Your task to perform on an android device: refresh tabs in the chrome app Image 0: 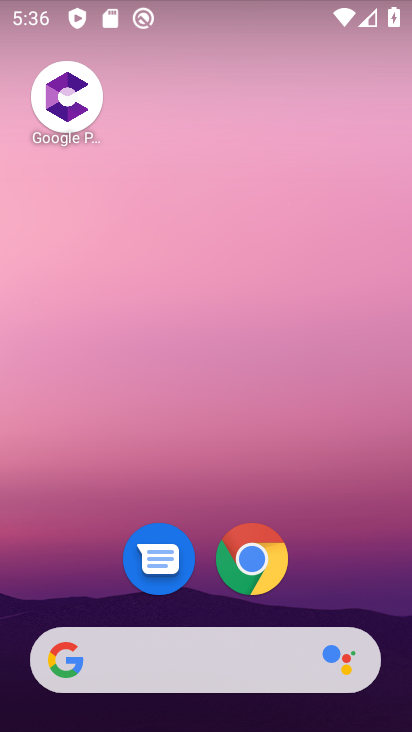
Step 0: press home button
Your task to perform on an android device: refresh tabs in the chrome app Image 1: 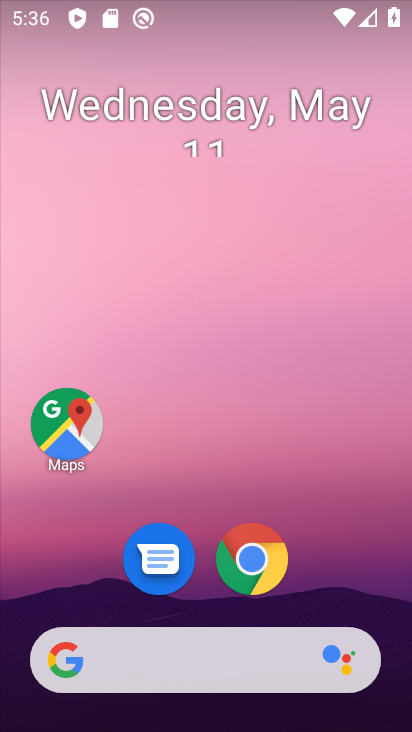
Step 1: click (233, 567)
Your task to perform on an android device: refresh tabs in the chrome app Image 2: 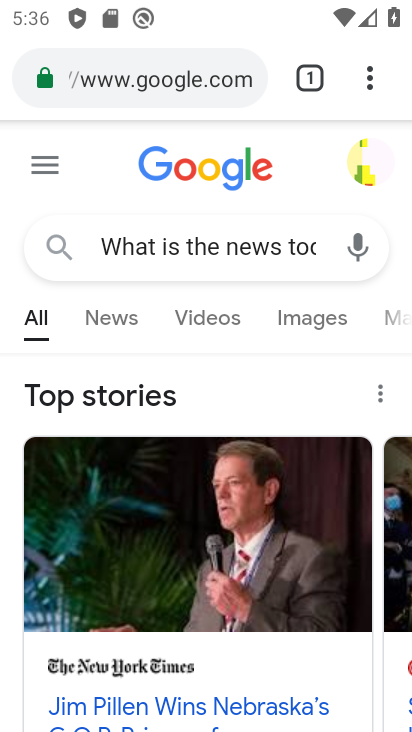
Step 2: task complete